Your task to perform on an android device: Open sound settings Image 0: 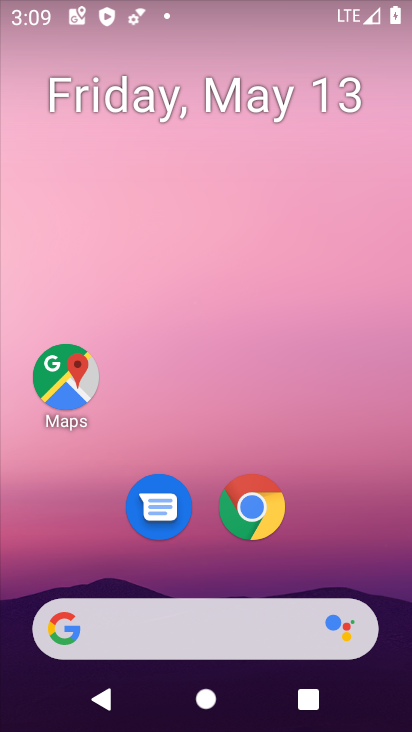
Step 0: drag from (277, 439) to (310, 94)
Your task to perform on an android device: Open sound settings Image 1: 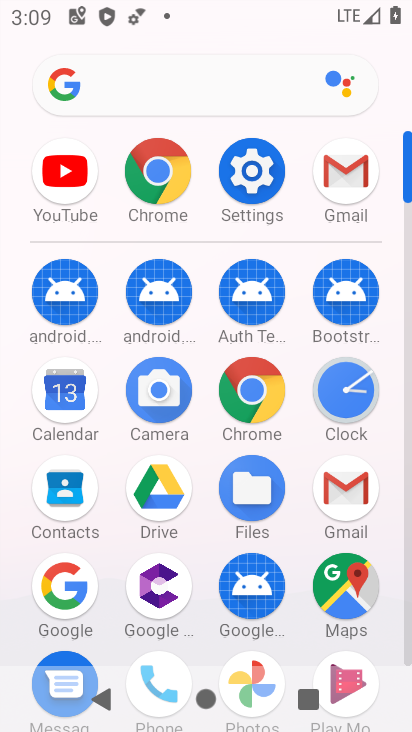
Step 1: click (243, 152)
Your task to perform on an android device: Open sound settings Image 2: 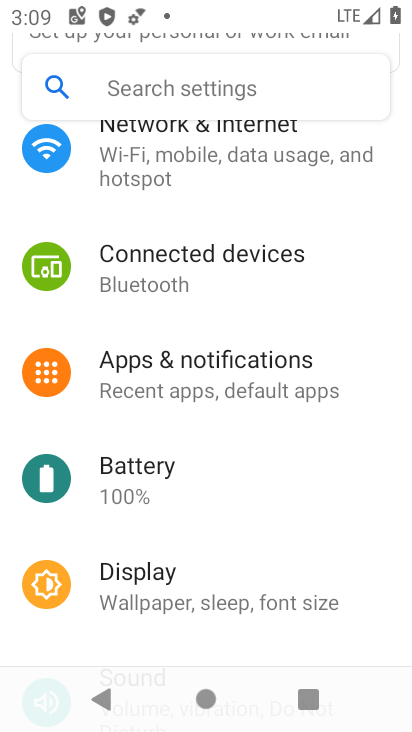
Step 2: drag from (248, 245) to (292, 567)
Your task to perform on an android device: Open sound settings Image 3: 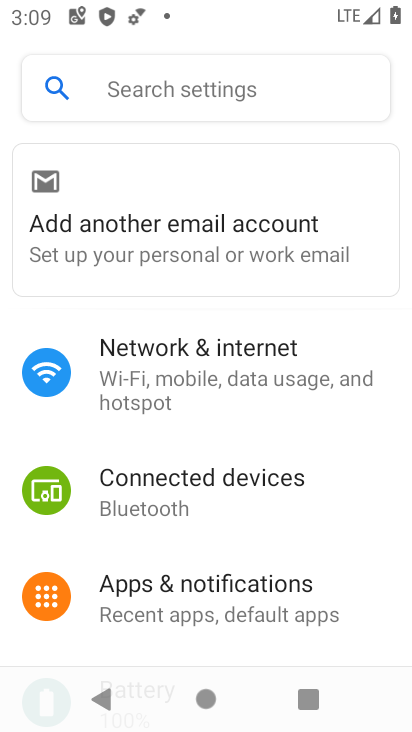
Step 3: drag from (288, 558) to (301, 123)
Your task to perform on an android device: Open sound settings Image 4: 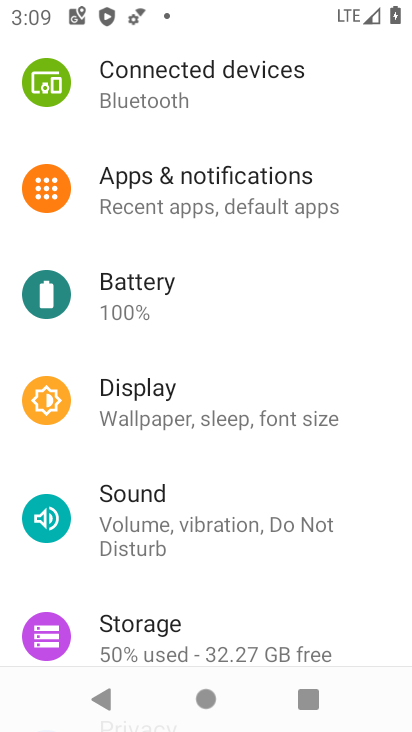
Step 4: click (214, 520)
Your task to perform on an android device: Open sound settings Image 5: 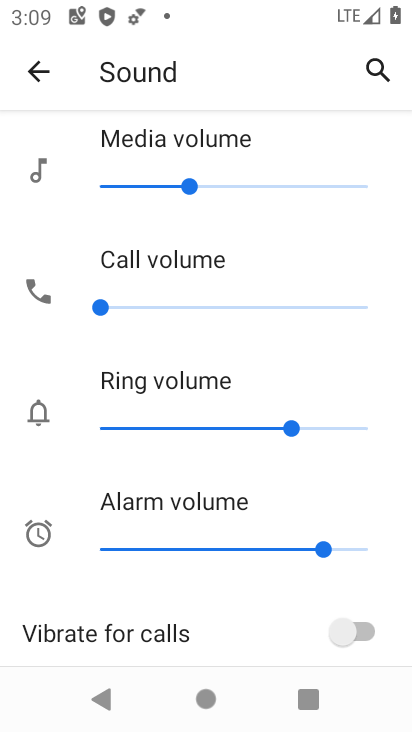
Step 5: task complete